Your task to perform on an android device: Open CNN.com Image 0: 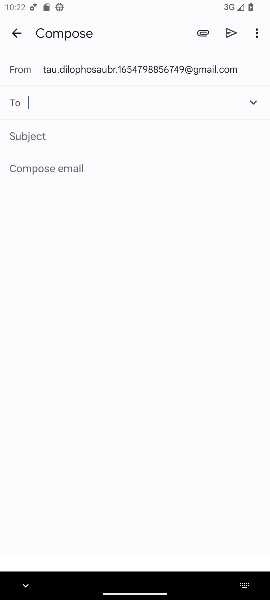
Step 0: press home button
Your task to perform on an android device: Open CNN.com Image 1: 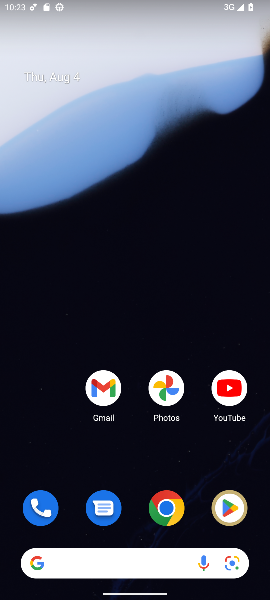
Step 1: click (89, 570)
Your task to perform on an android device: Open CNN.com Image 2: 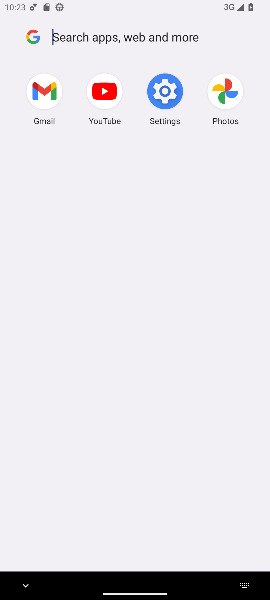
Step 2: click (206, 24)
Your task to perform on an android device: Open CNN.com Image 3: 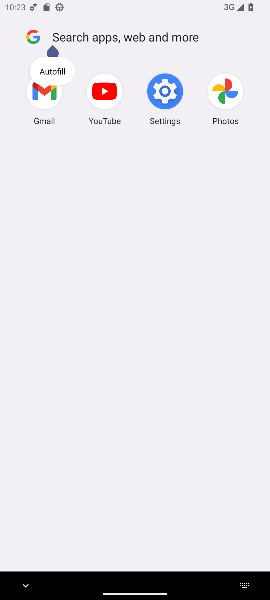
Step 3: type " CNN.com"
Your task to perform on an android device: Open CNN.com Image 4: 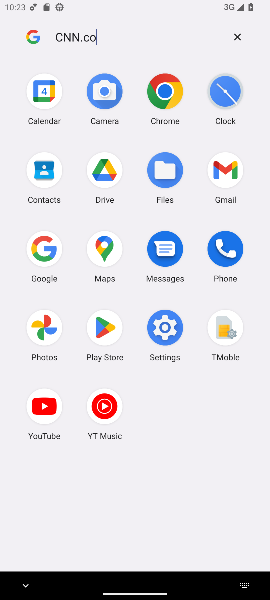
Step 4: type ""
Your task to perform on an android device: Open CNN.com Image 5: 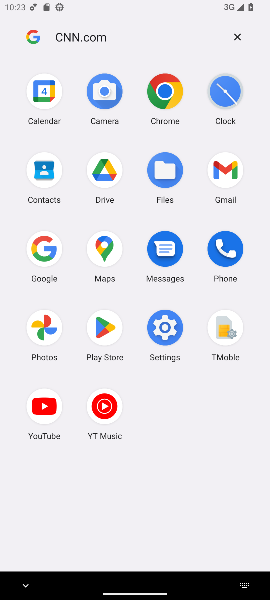
Step 5: click (158, 38)
Your task to perform on an android device: Open CNN.com Image 6: 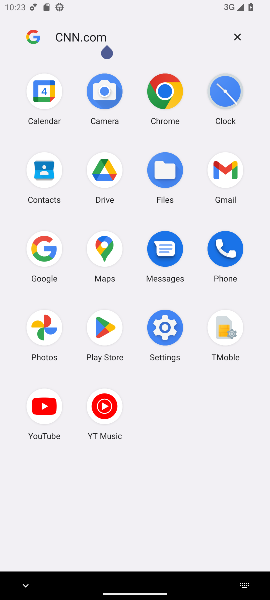
Step 6: task complete